Your task to perform on an android device: change the upload size in google photos Image 0: 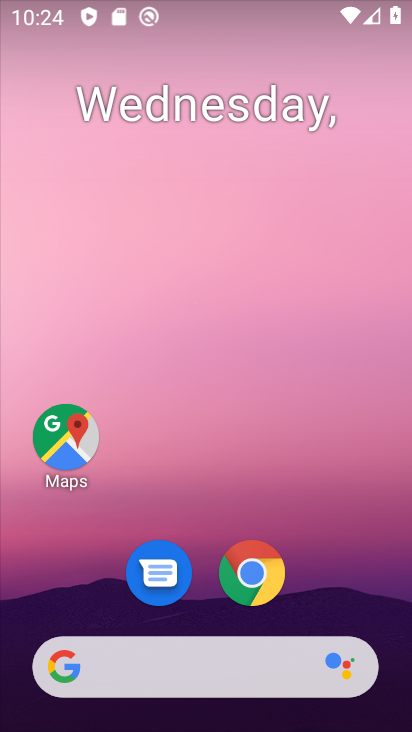
Step 0: drag from (368, 596) to (340, 276)
Your task to perform on an android device: change the upload size in google photos Image 1: 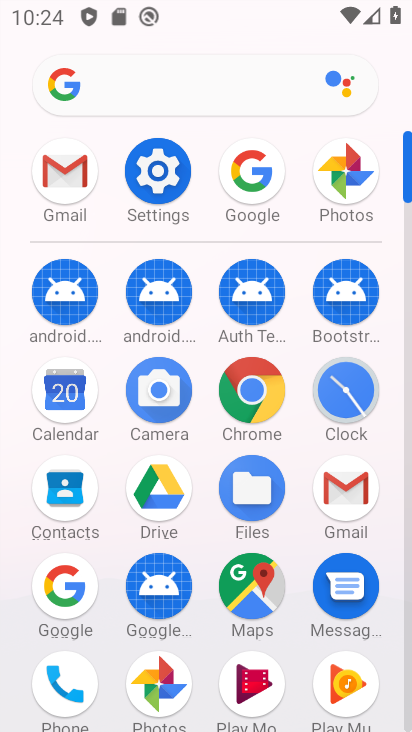
Step 1: click (340, 181)
Your task to perform on an android device: change the upload size in google photos Image 2: 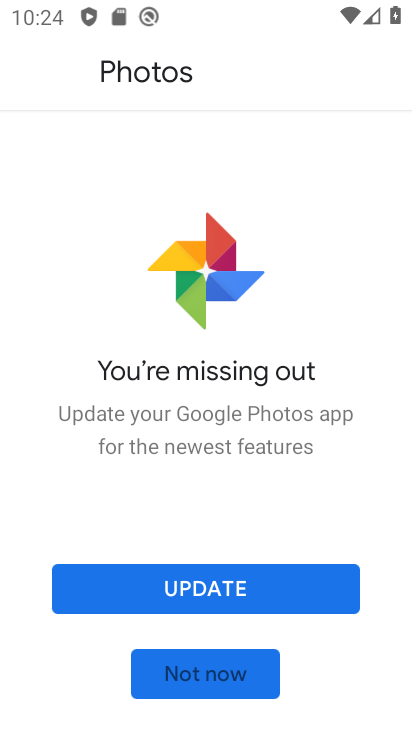
Step 2: click (256, 582)
Your task to perform on an android device: change the upload size in google photos Image 3: 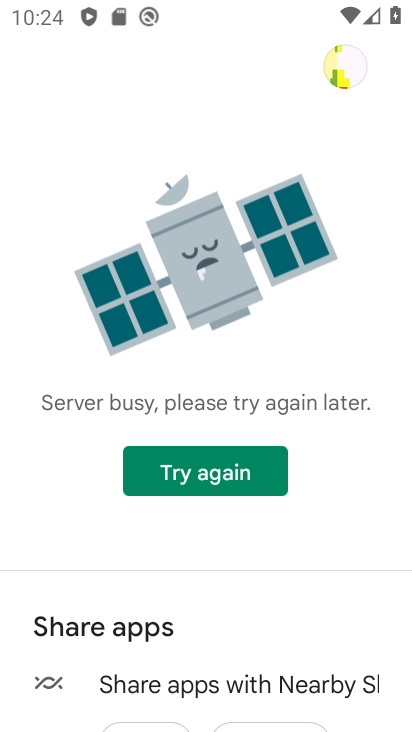
Step 3: click (261, 467)
Your task to perform on an android device: change the upload size in google photos Image 4: 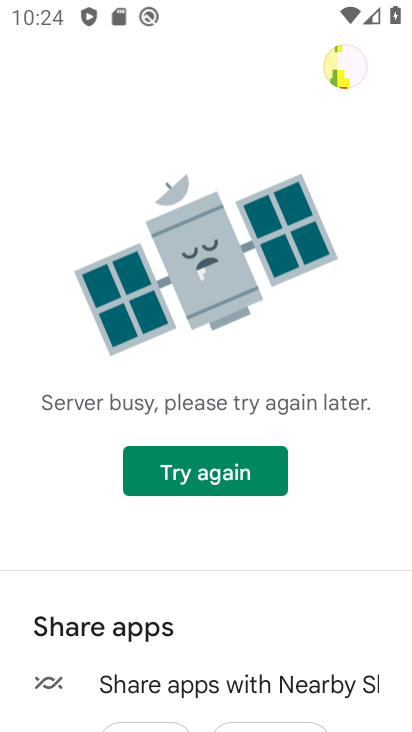
Step 4: click (261, 468)
Your task to perform on an android device: change the upload size in google photos Image 5: 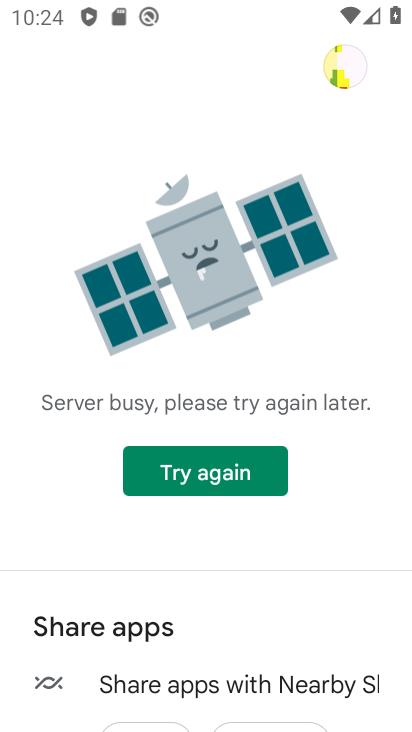
Step 5: click (261, 468)
Your task to perform on an android device: change the upload size in google photos Image 6: 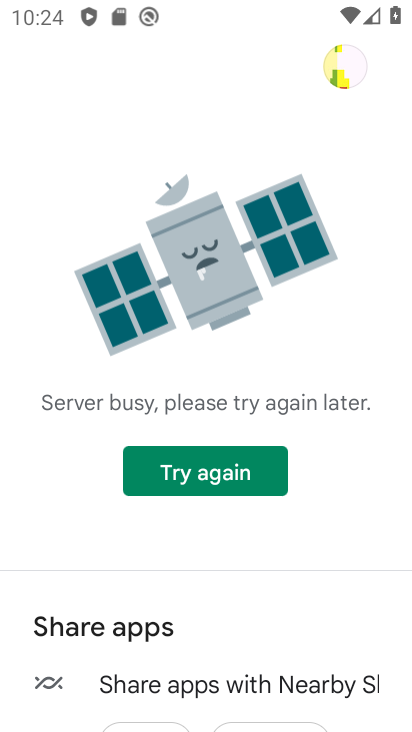
Step 6: task complete